Your task to perform on an android device: Show me popular videos on Youtube Image 0: 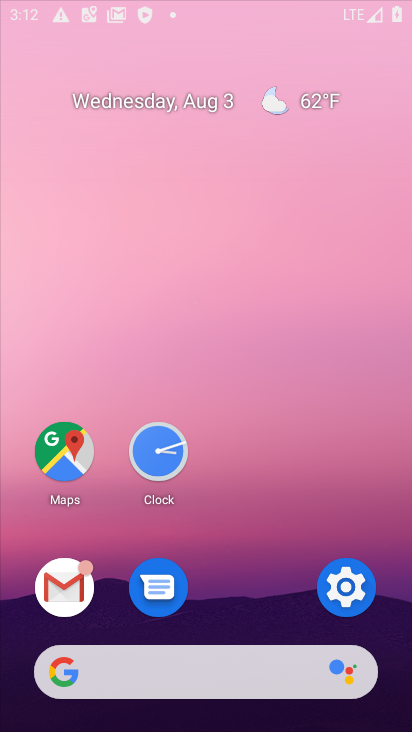
Step 0: press home button
Your task to perform on an android device: Show me popular videos on Youtube Image 1: 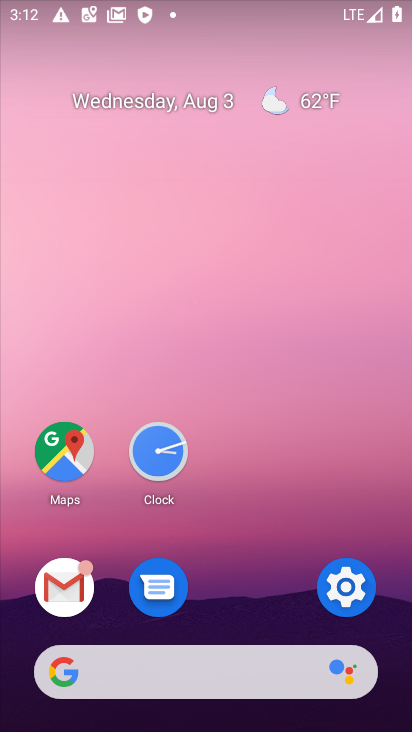
Step 1: drag from (268, 593) to (167, 109)
Your task to perform on an android device: Show me popular videos on Youtube Image 2: 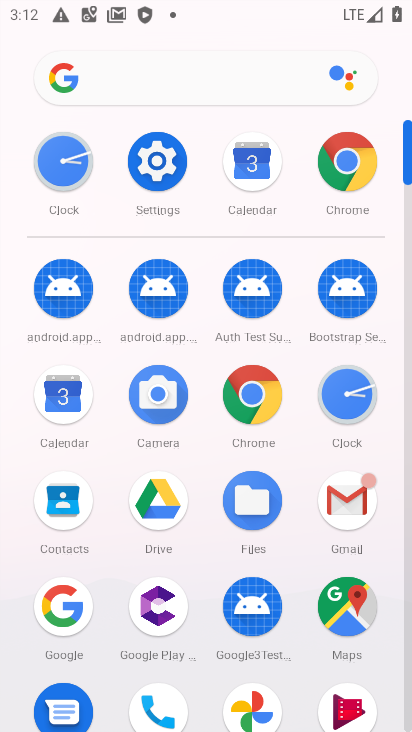
Step 2: drag from (210, 652) to (152, 116)
Your task to perform on an android device: Show me popular videos on Youtube Image 3: 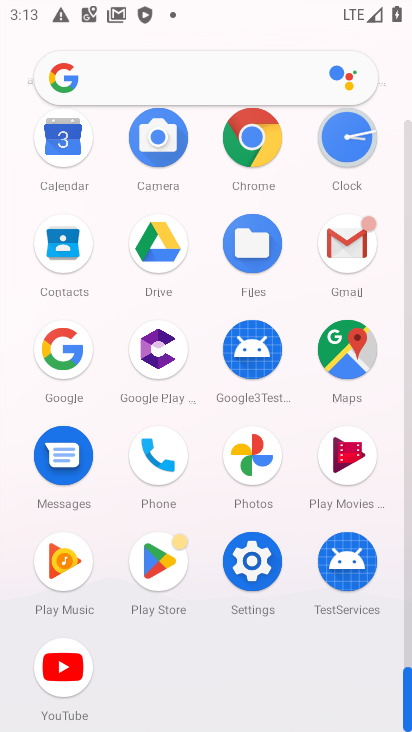
Step 3: click (64, 659)
Your task to perform on an android device: Show me popular videos on Youtube Image 4: 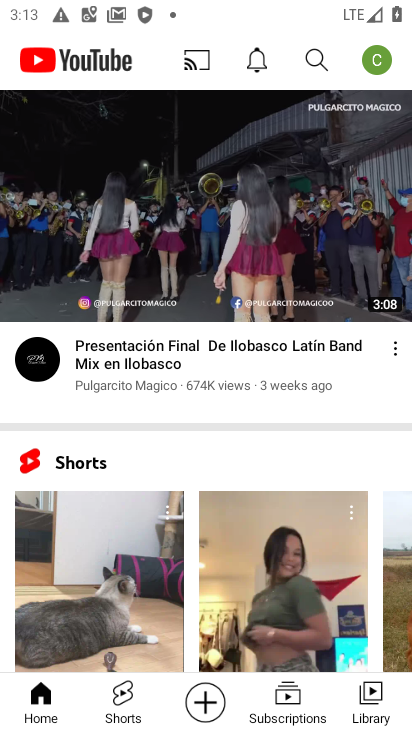
Step 4: click (116, 692)
Your task to perform on an android device: Show me popular videos on Youtube Image 5: 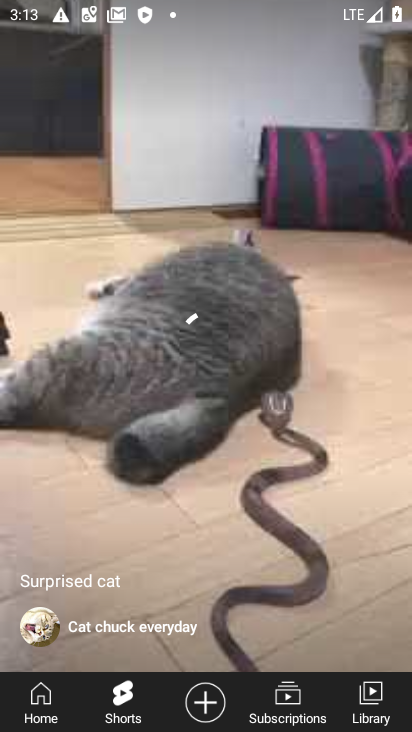
Step 5: task complete